Your task to perform on an android device: Clear the cart on target.com. Image 0: 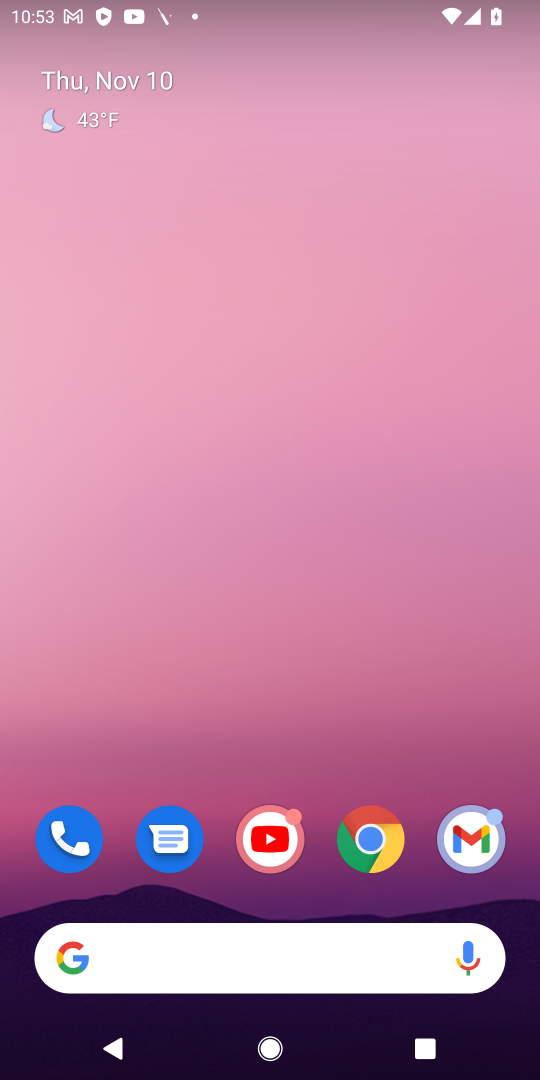
Step 0: click (378, 831)
Your task to perform on an android device: Clear the cart on target.com. Image 1: 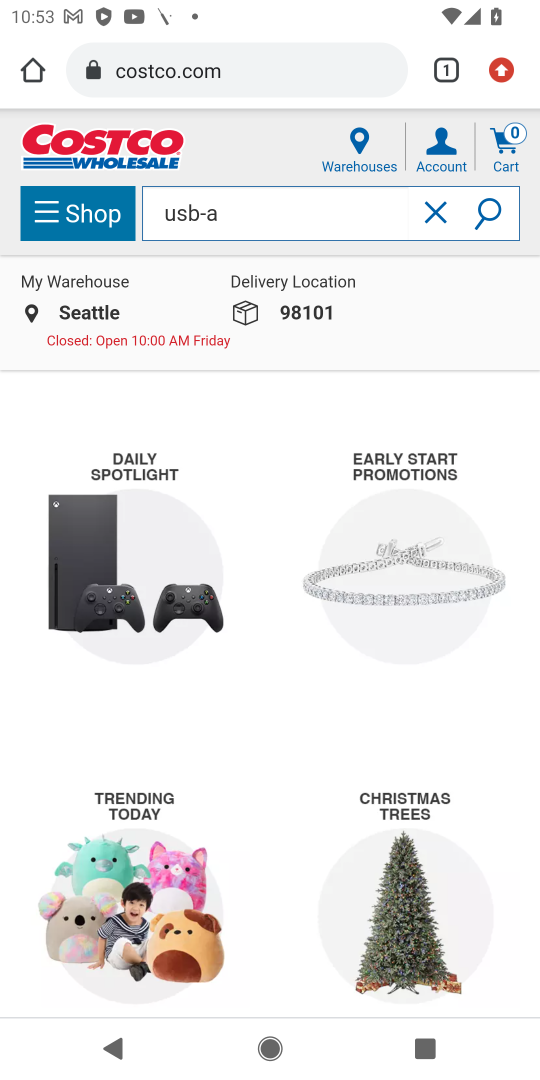
Step 1: click (356, 70)
Your task to perform on an android device: Clear the cart on target.com. Image 2: 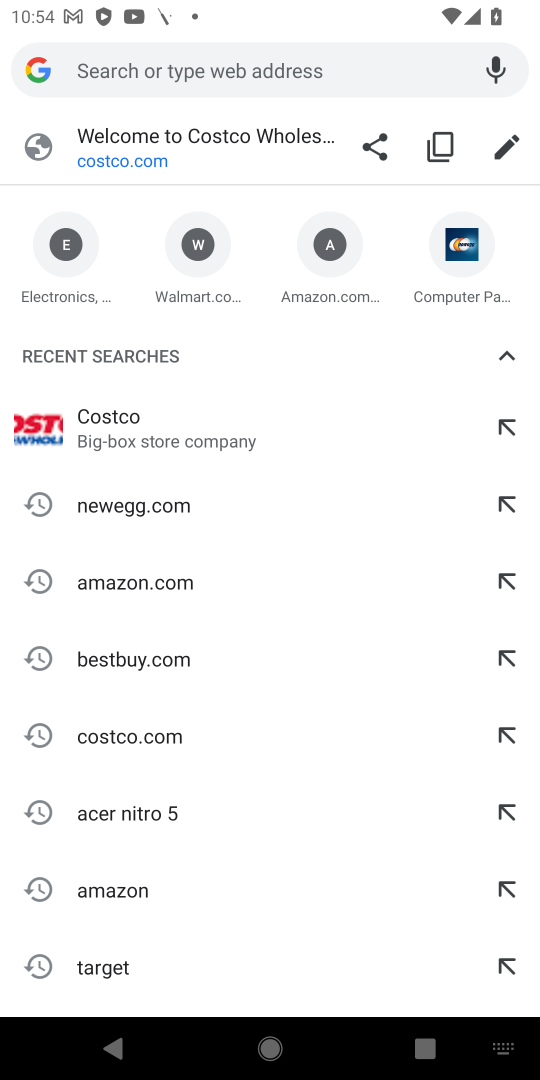
Step 2: drag from (177, 846) to (259, 561)
Your task to perform on an android device: Clear the cart on target.com. Image 3: 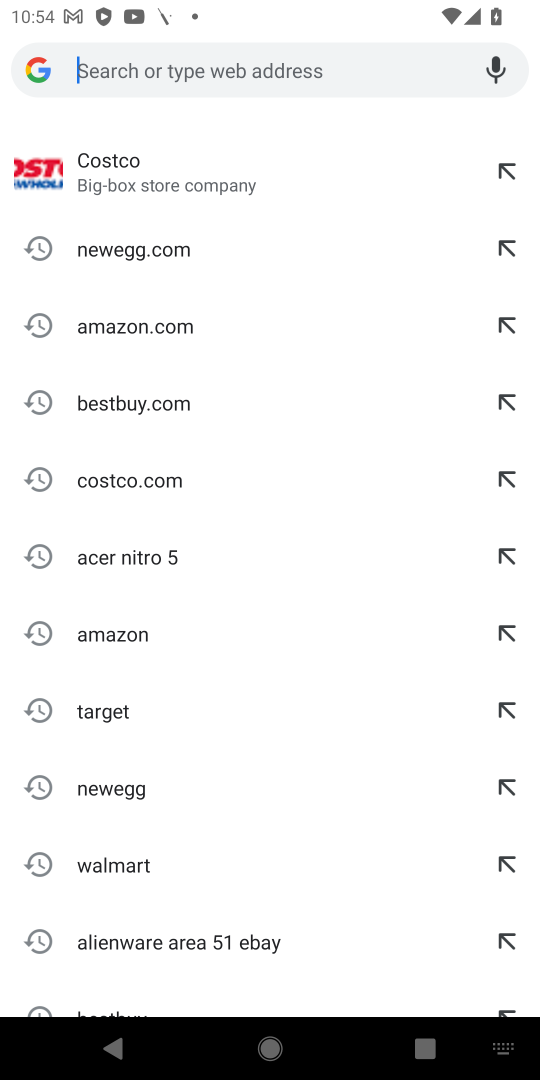
Step 3: click (103, 707)
Your task to perform on an android device: Clear the cart on target.com. Image 4: 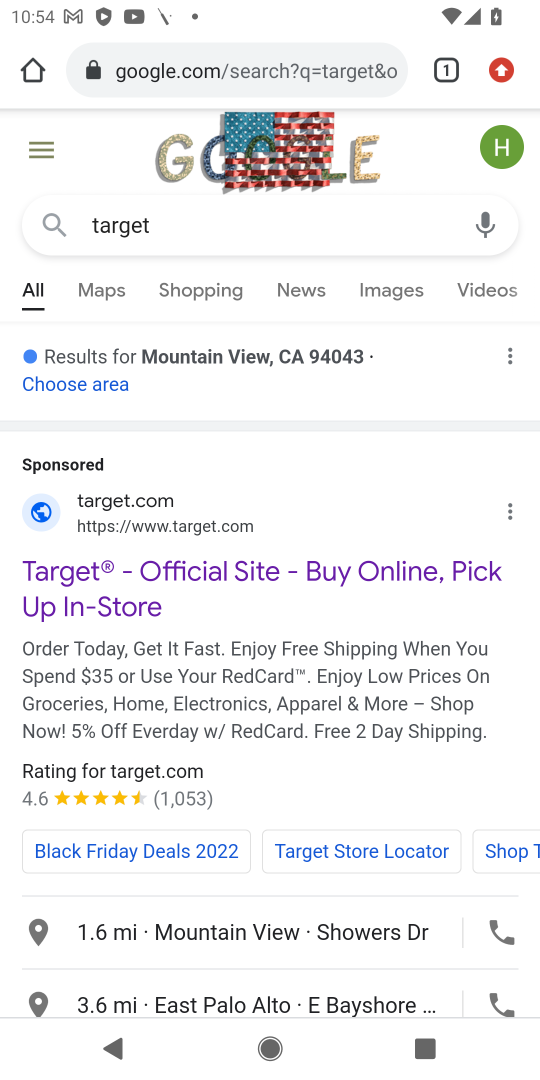
Step 4: click (202, 526)
Your task to perform on an android device: Clear the cart on target.com. Image 5: 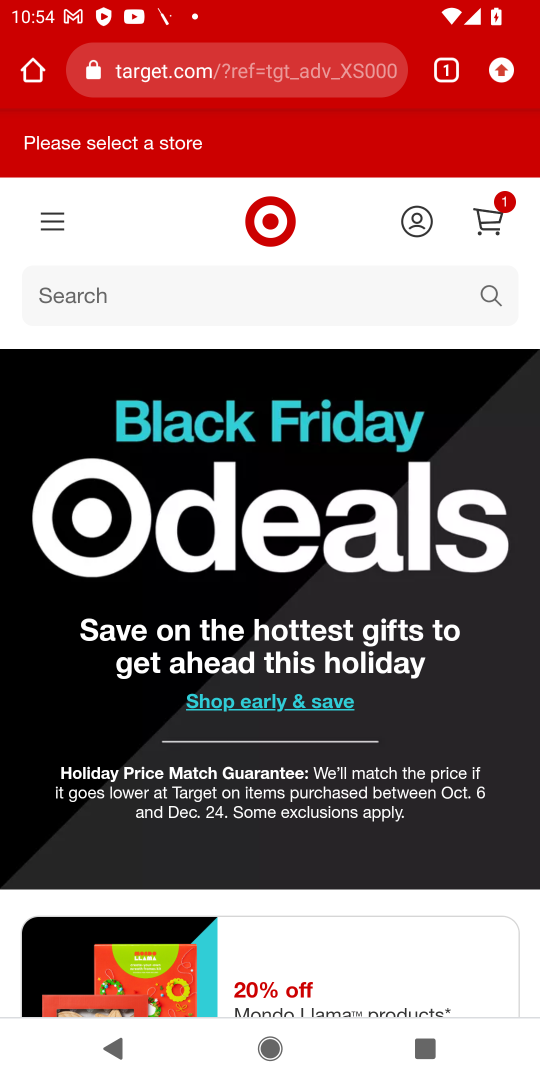
Step 5: click (486, 221)
Your task to perform on an android device: Clear the cart on target.com. Image 6: 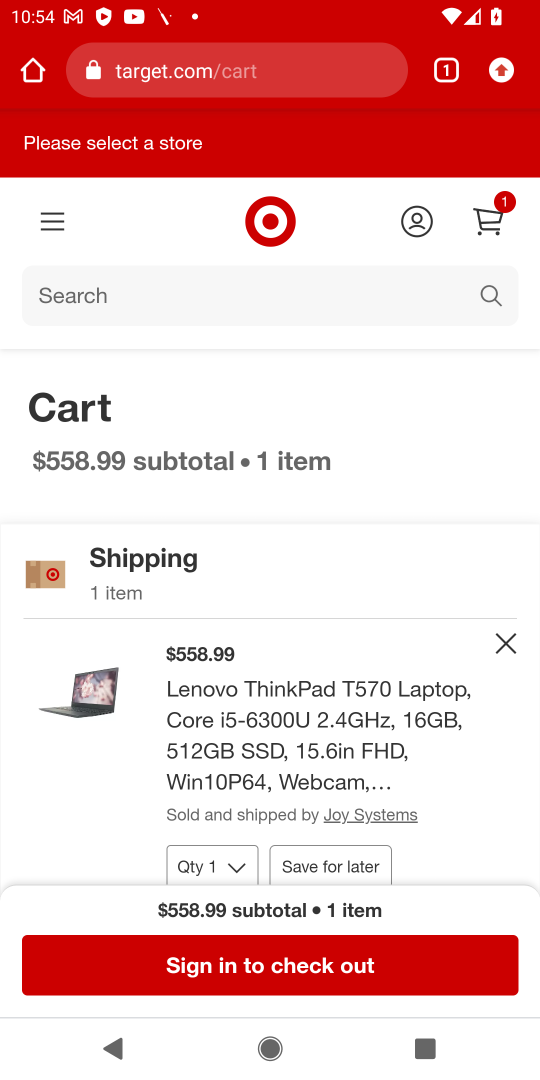
Step 6: click (505, 645)
Your task to perform on an android device: Clear the cart on target.com. Image 7: 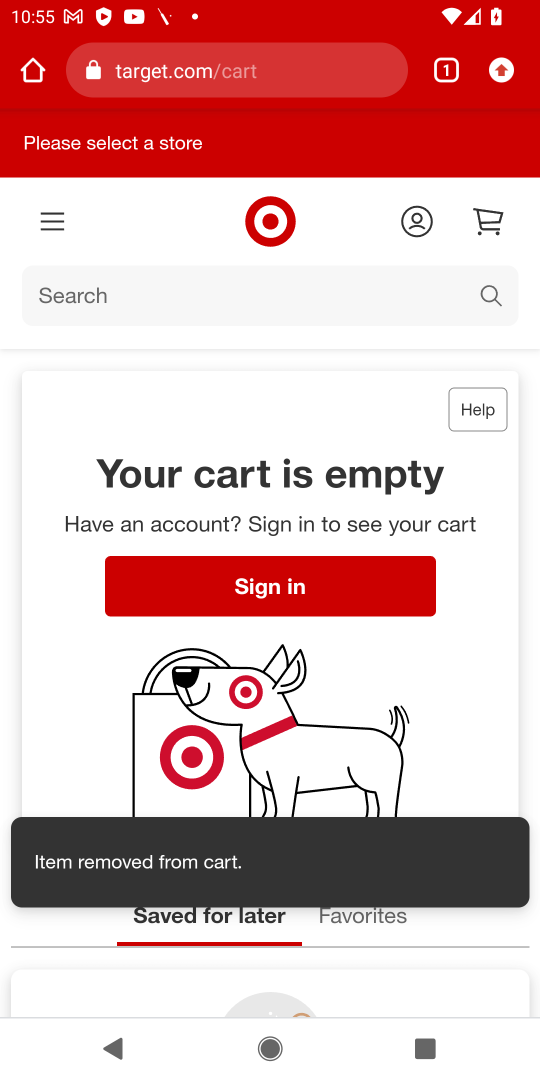
Step 7: task complete